Your task to perform on an android device: Open notification settings Image 0: 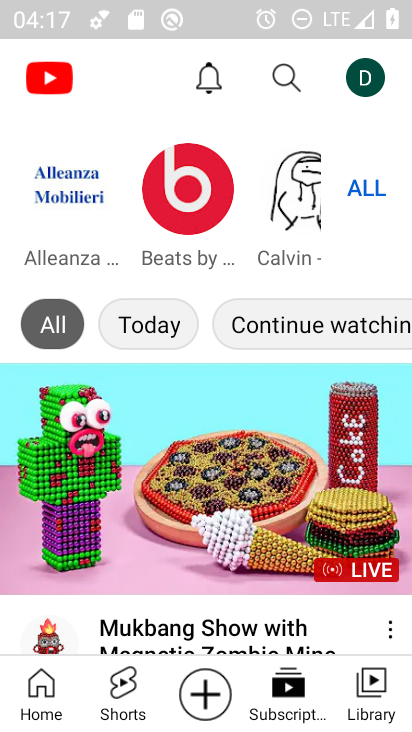
Step 0: drag from (379, 587) to (372, 381)
Your task to perform on an android device: Open notification settings Image 1: 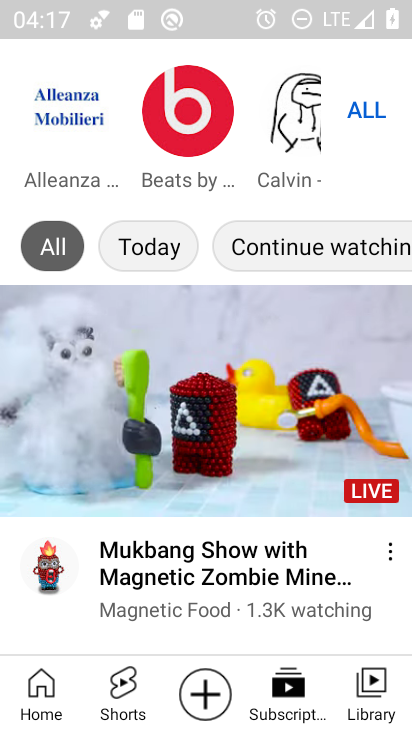
Step 1: press home button
Your task to perform on an android device: Open notification settings Image 2: 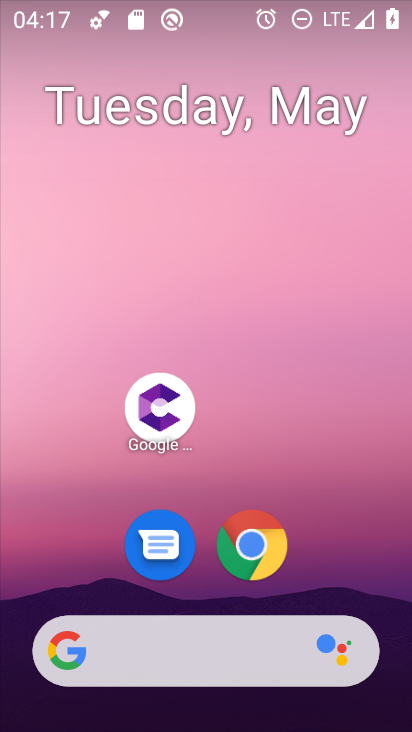
Step 2: drag from (348, 580) to (347, 184)
Your task to perform on an android device: Open notification settings Image 3: 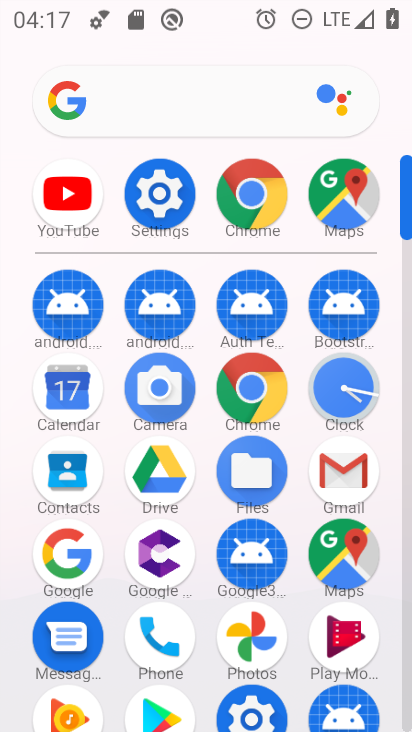
Step 3: click (171, 216)
Your task to perform on an android device: Open notification settings Image 4: 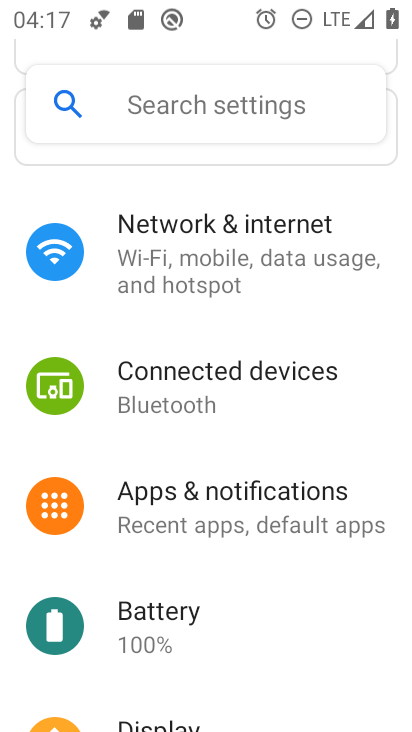
Step 4: drag from (325, 601) to (324, 495)
Your task to perform on an android device: Open notification settings Image 5: 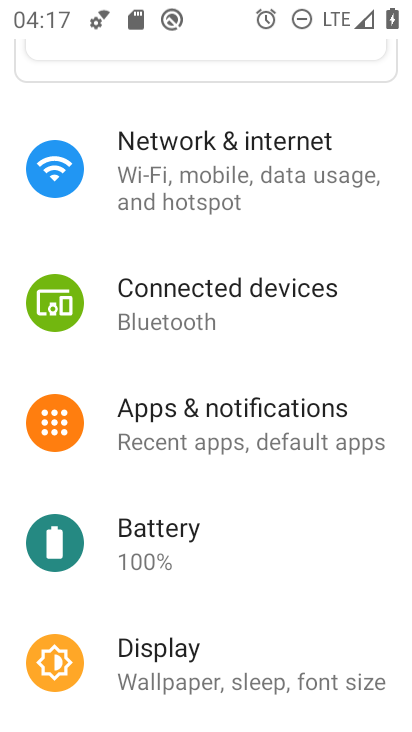
Step 5: drag from (299, 598) to (312, 494)
Your task to perform on an android device: Open notification settings Image 6: 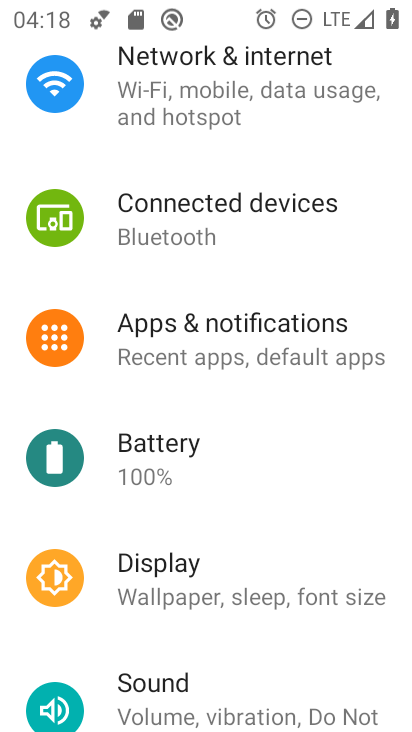
Step 6: drag from (272, 648) to (288, 540)
Your task to perform on an android device: Open notification settings Image 7: 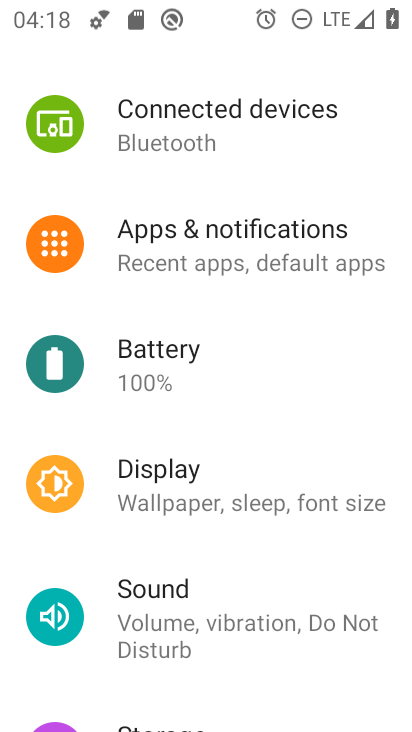
Step 7: drag from (293, 673) to (299, 548)
Your task to perform on an android device: Open notification settings Image 8: 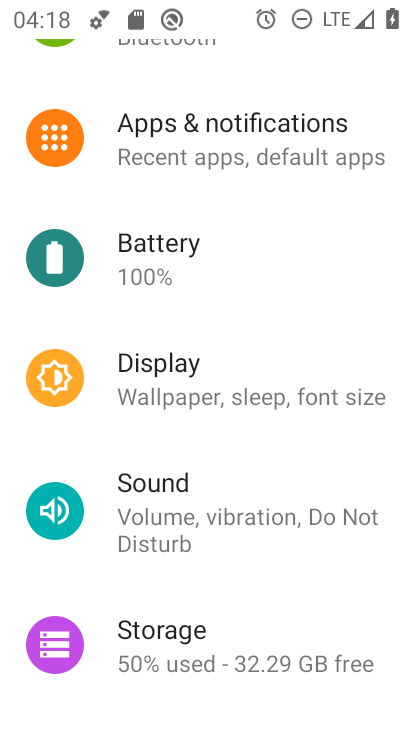
Step 8: drag from (285, 631) to (283, 516)
Your task to perform on an android device: Open notification settings Image 9: 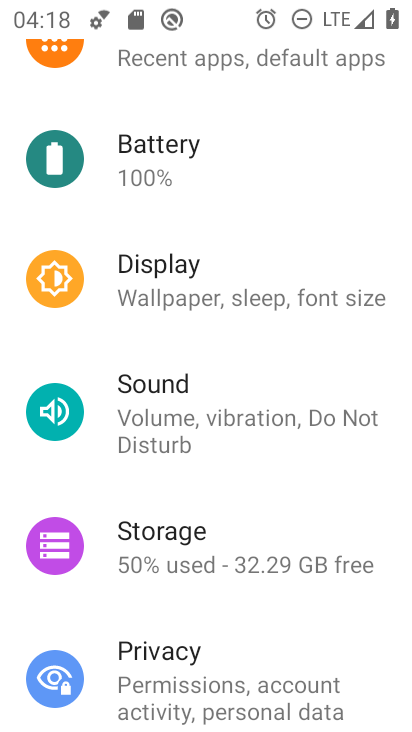
Step 9: drag from (265, 650) to (278, 537)
Your task to perform on an android device: Open notification settings Image 10: 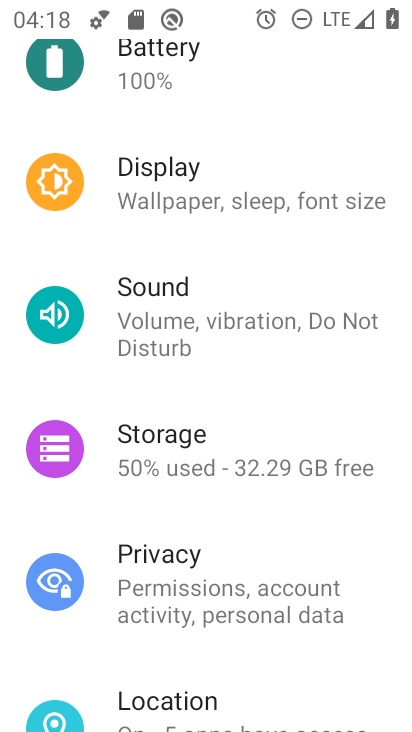
Step 10: drag from (264, 679) to (282, 564)
Your task to perform on an android device: Open notification settings Image 11: 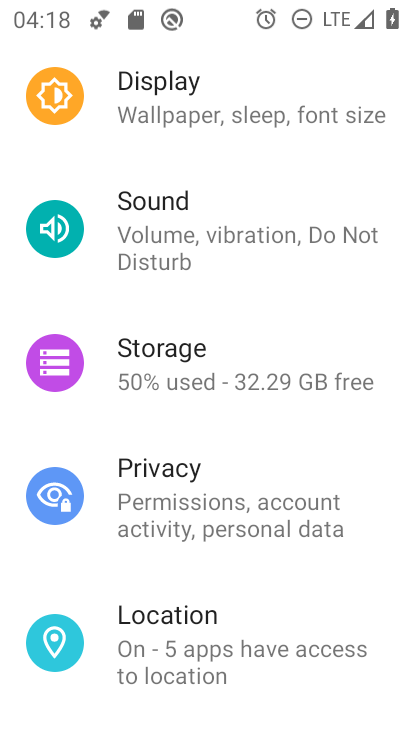
Step 11: drag from (285, 688) to (292, 574)
Your task to perform on an android device: Open notification settings Image 12: 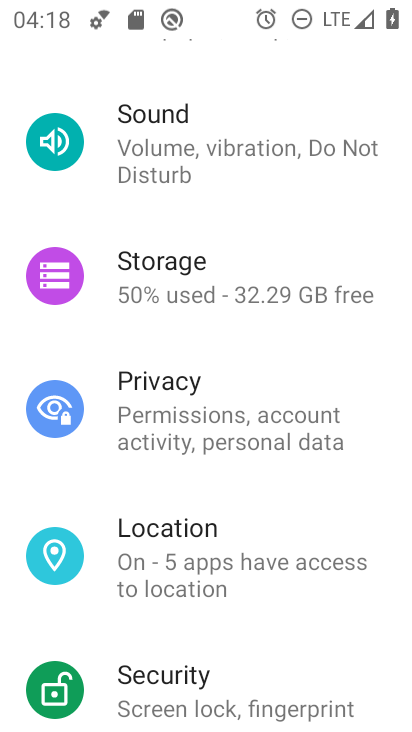
Step 12: drag from (283, 667) to (301, 563)
Your task to perform on an android device: Open notification settings Image 13: 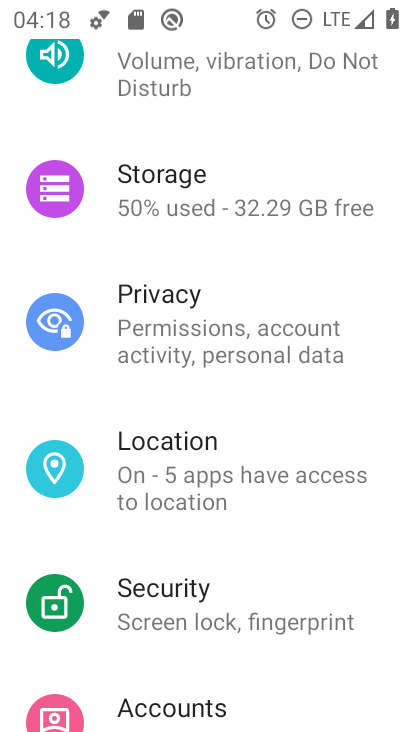
Step 13: drag from (309, 627) to (322, 484)
Your task to perform on an android device: Open notification settings Image 14: 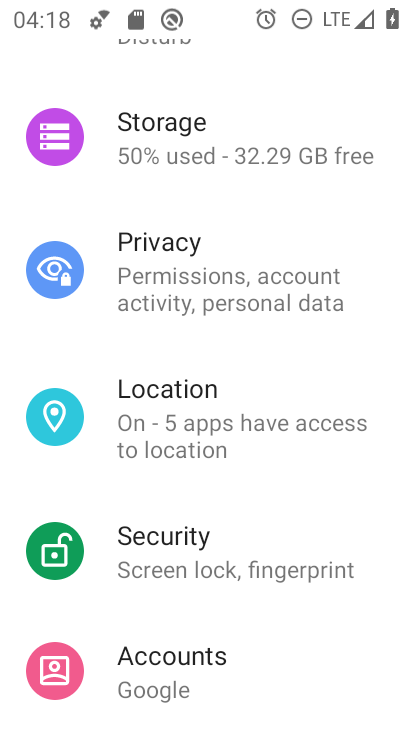
Step 14: drag from (371, 343) to (350, 476)
Your task to perform on an android device: Open notification settings Image 15: 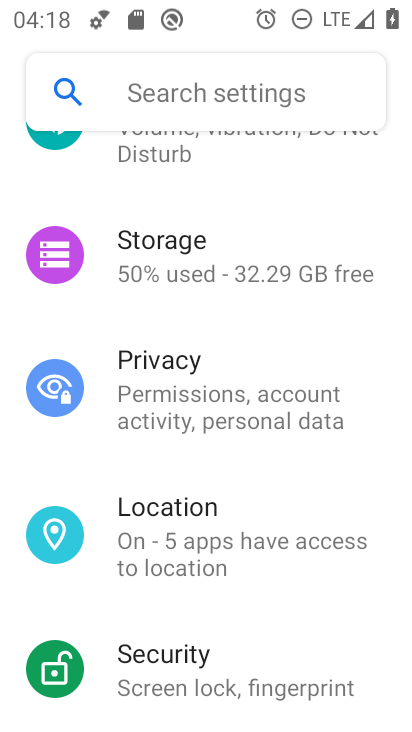
Step 15: drag from (369, 394) to (370, 472)
Your task to perform on an android device: Open notification settings Image 16: 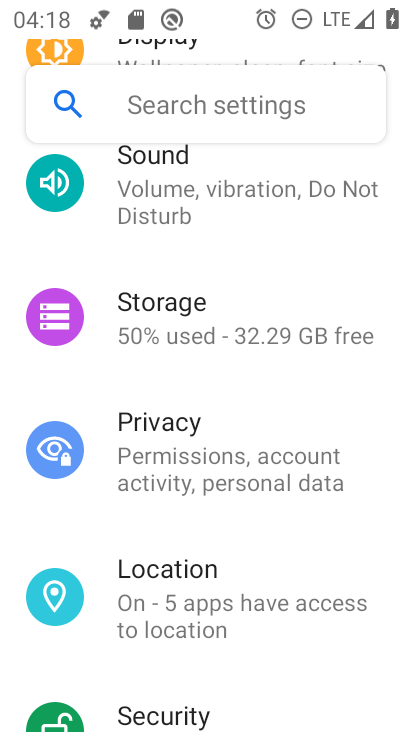
Step 16: drag from (377, 380) to (377, 471)
Your task to perform on an android device: Open notification settings Image 17: 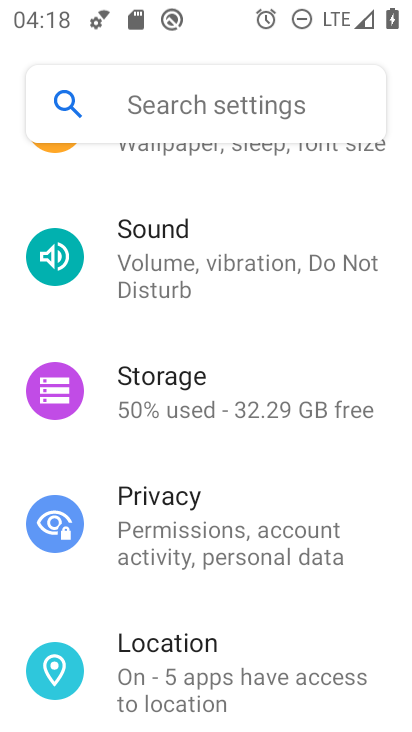
Step 17: drag from (387, 352) to (388, 464)
Your task to perform on an android device: Open notification settings Image 18: 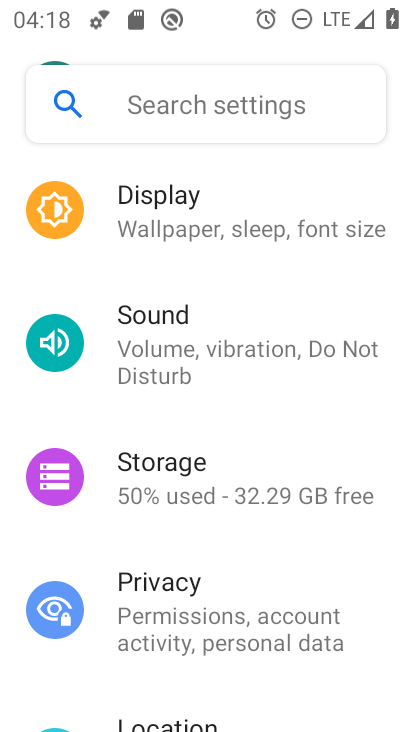
Step 18: drag from (371, 276) to (366, 398)
Your task to perform on an android device: Open notification settings Image 19: 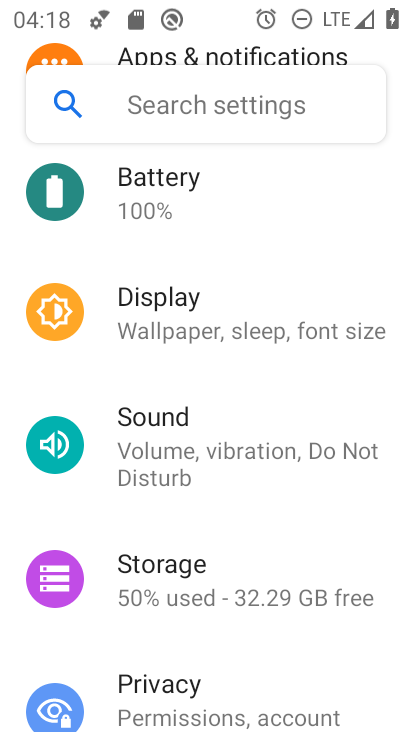
Step 19: drag from (366, 252) to (366, 361)
Your task to perform on an android device: Open notification settings Image 20: 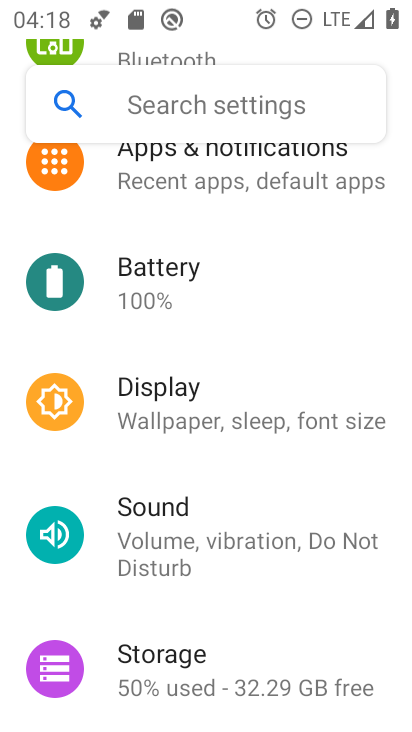
Step 20: drag from (361, 265) to (349, 387)
Your task to perform on an android device: Open notification settings Image 21: 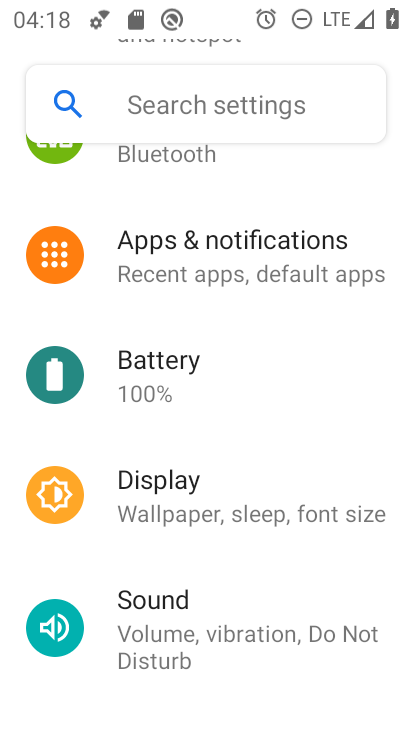
Step 21: click (330, 259)
Your task to perform on an android device: Open notification settings Image 22: 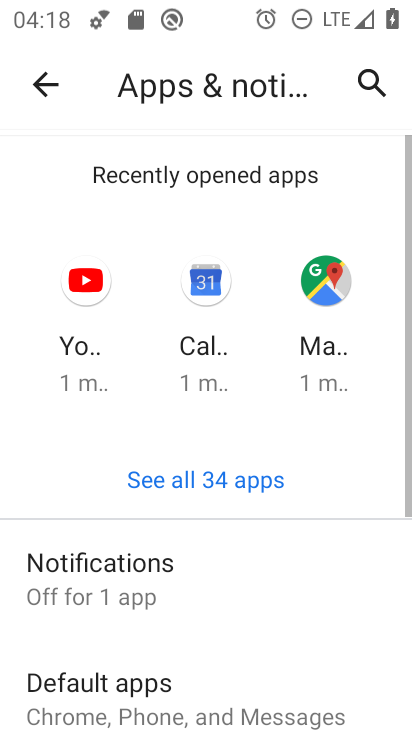
Step 22: drag from (259, 546) to (269, 392)
Your task to perform on an android device: Open notification settings Image 23: 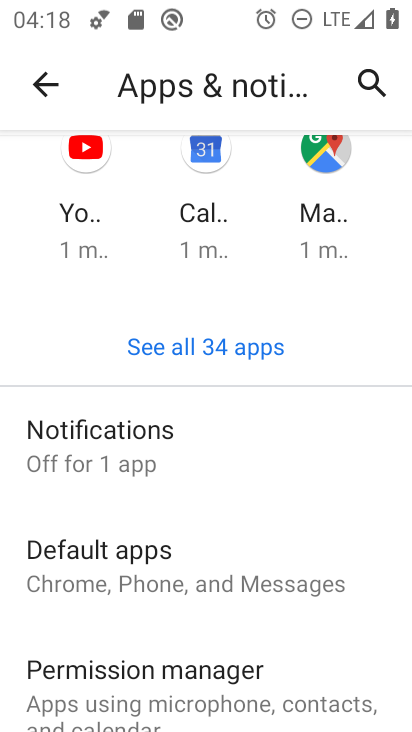
Step 23: drag from (227, 488) to (242, 343)
Your task to perform on an android device: Open notification settings Image 24: 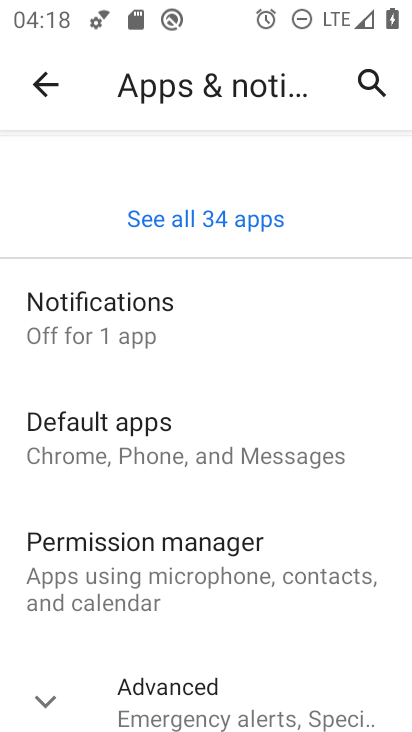
Step 24: click (142, 322)
Your task to perform on an android device: Open notification settings Image 25: 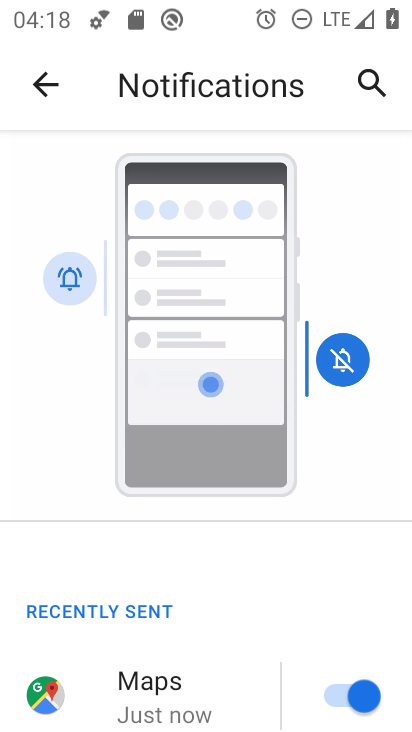
Step 25: task complete